Your task to perform on an android device: What is the news today? Image 0: 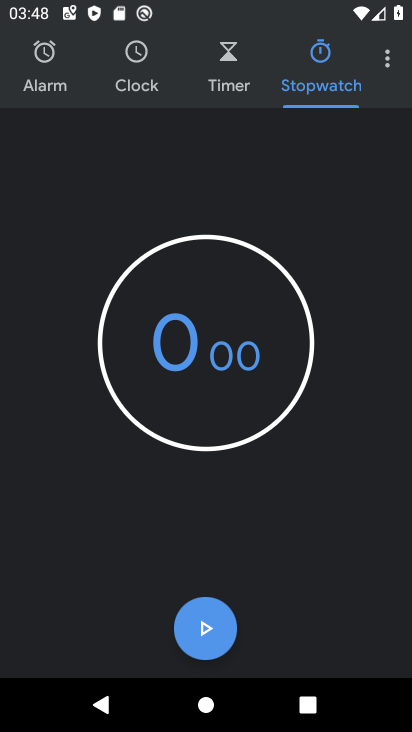
Step 0: drag from (347, 11) to (332, 121)
Your task to perform on an android device: What is the news today? Image 1: 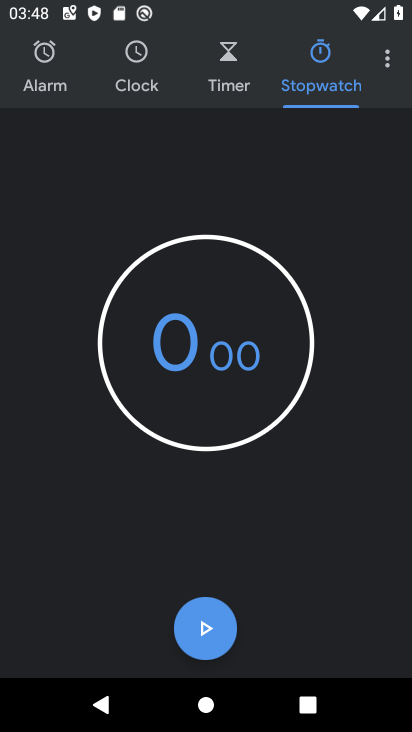
Step 1: task complete